Your task to perform on an android device: Open Amazon Image 0: 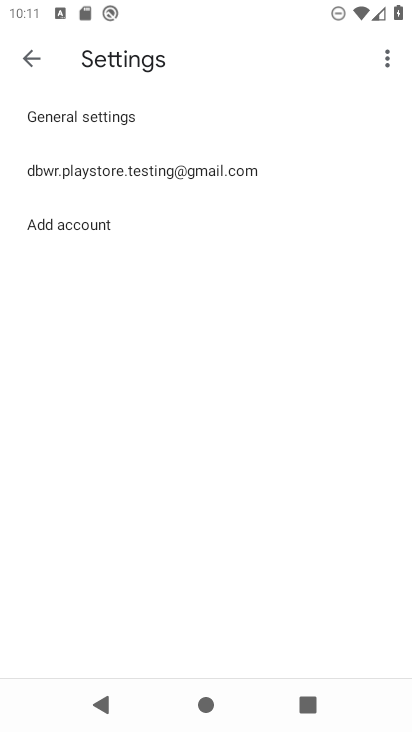
Step 0: press home button
Your task to perform on an android device: Open Amazon Image 1: 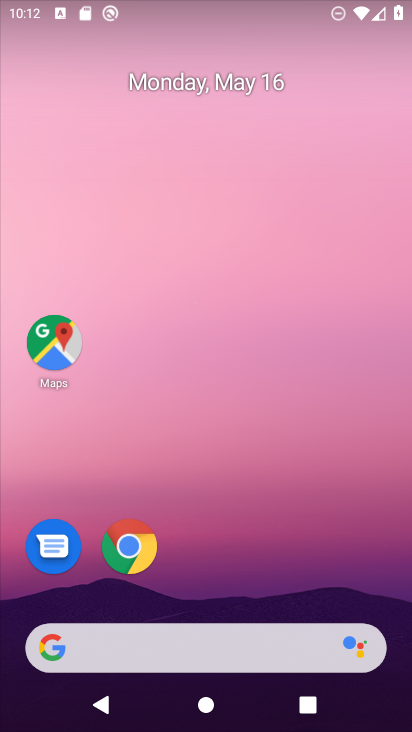
Step 1: click (129, 549)
Your task to perform on an android device: Open Amazon Image 2: 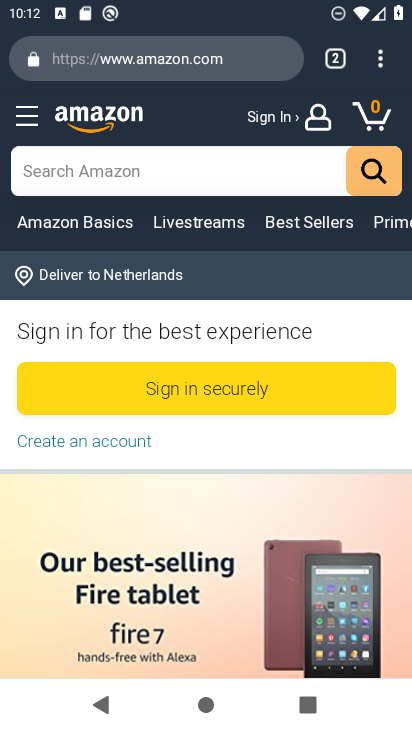
Step 2: task complete